Your task to perform on an android device: turn off priority inbox in the gmail app Image 0: 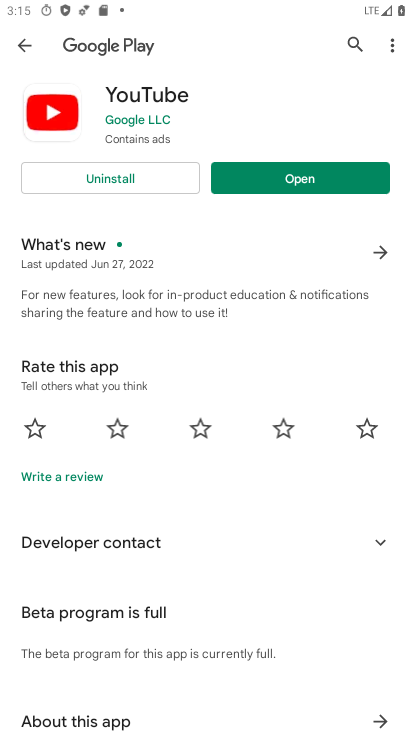
Step 0: press home button
Your task to perform on an android device: turn off priority inbox in the gmail app Image 1: 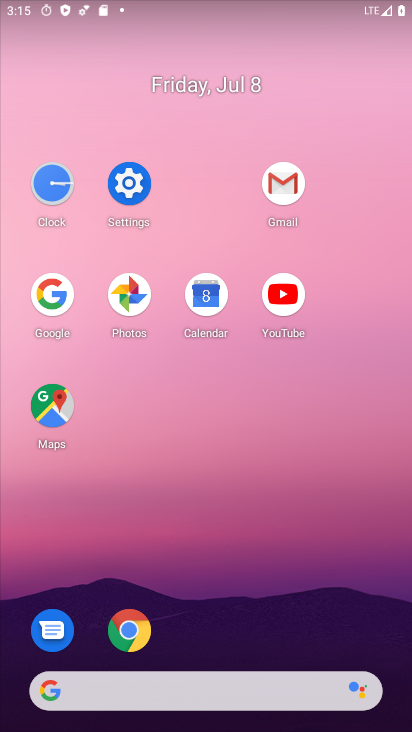
Step 1: click (299, 176)
Your task to perform on an android device: turn off priority inbox in the gmail app Image 2: 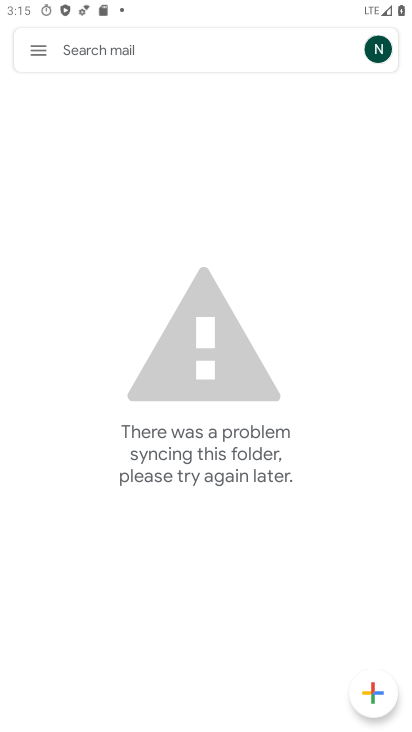
Step 2: click (41, 40)
Your task to perform on an android device: turn off priority inbox in the gmail app Image 3: 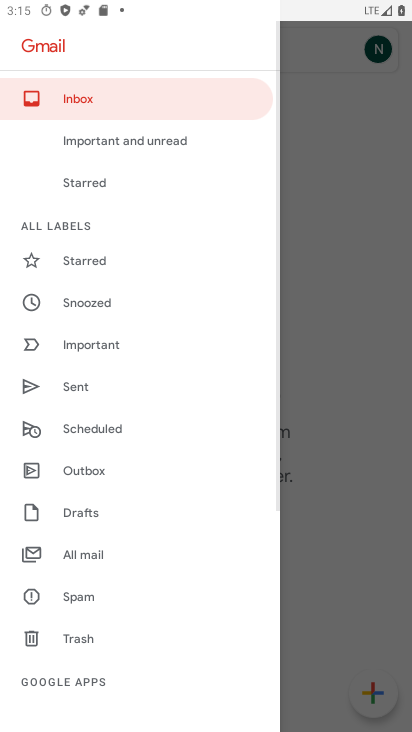
Step 3: drag from (116, 609) to (104, 269)
Your task to perform on an android device: turn off priority inbox in the gmail app Image 4: 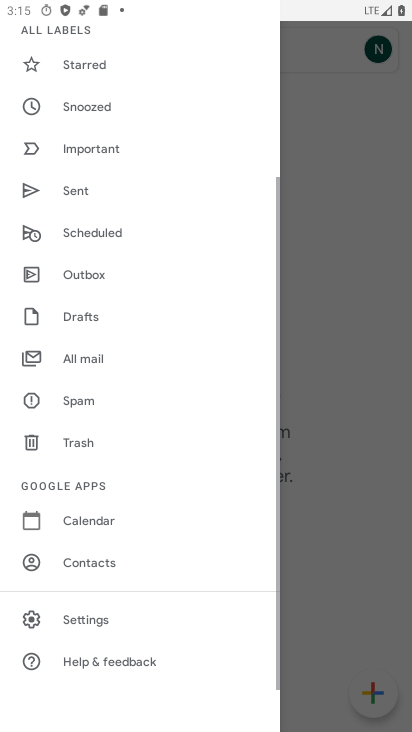
Step 4: click (106, 609)
Your task to perform on an android device: turn off priority inbox in the gmail app Image 5: 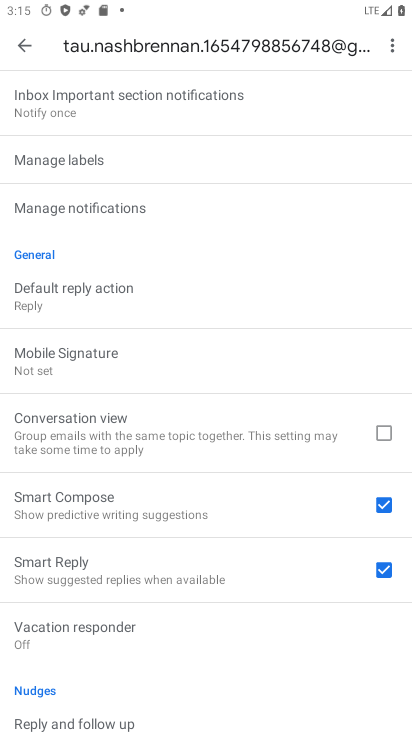
Step 5: drag from (105, 610) to (104, 458)
Your task to perform on an android device: turn off priority inbox in the gmail app Image 6: 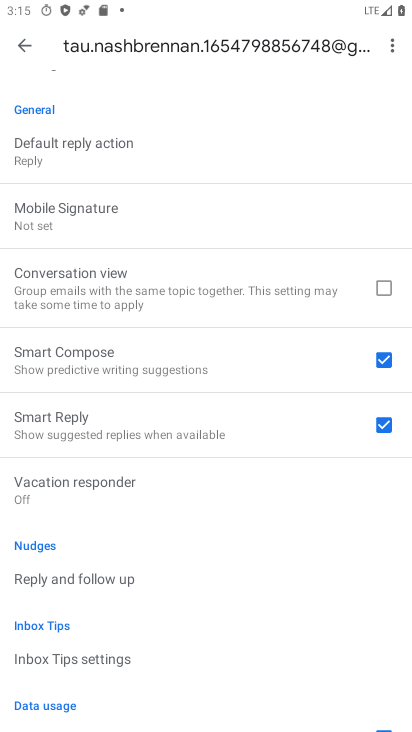
Step 6: drag from (137, 215) to (112, 535)
Your task to perform on an android device: turn off priority inbox in the gmail app Image 7: 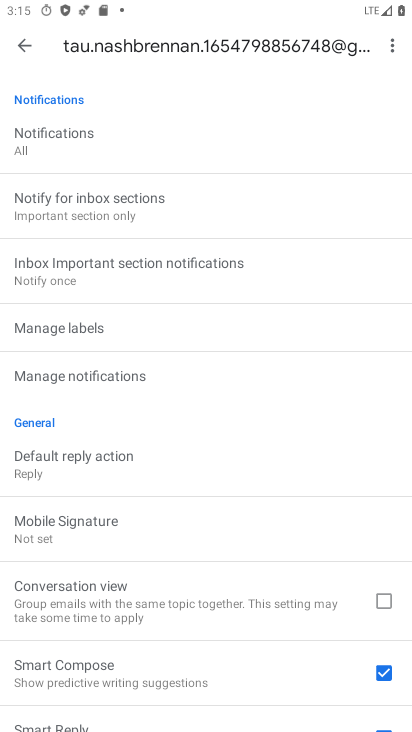
Step 7: drag from (173, 232) to (134, 474)
Your task to perform on an android device: turn off priority inbox in the gmail app Image 8: 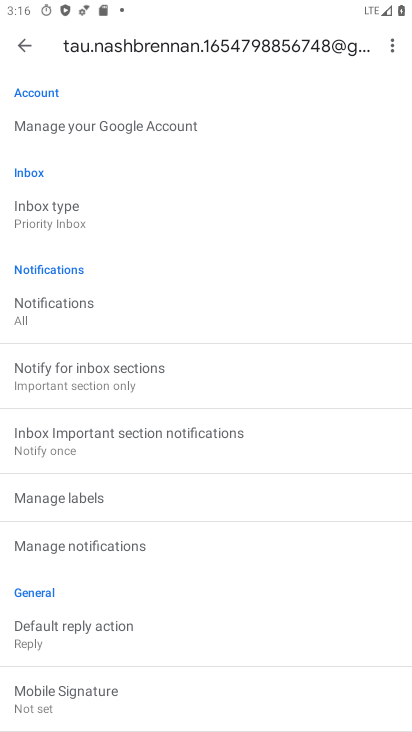
Step 8: click (126, 210)
Your task to perform on an android device: turn off priority inbox in the gmail app Image 9: 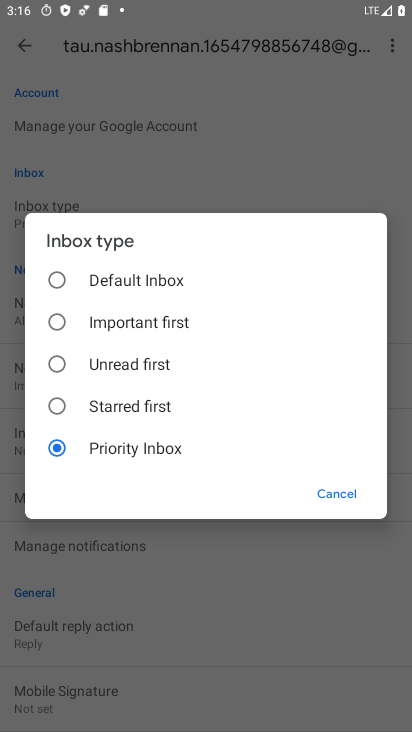
Step 9: click (134, 284)
Your task to perform on an android device: turn off priority inbox in the gmail app Image 10: 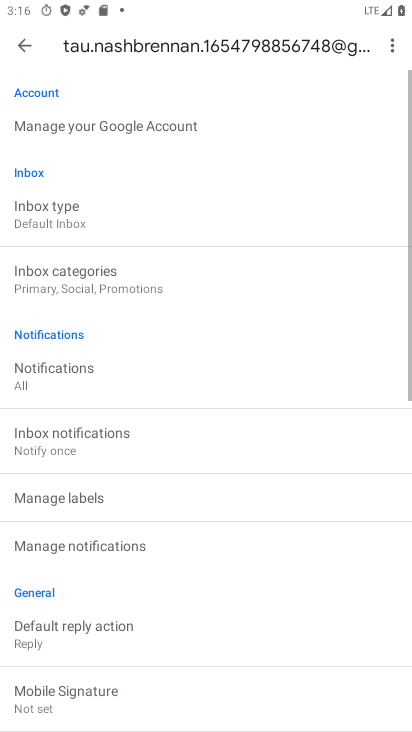
Step 10: task complete